Your task to perform on an android device: Open settings Image 0: 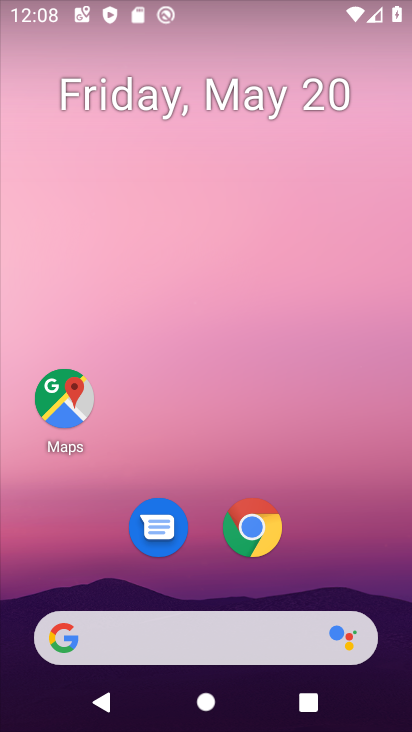
Step 0: press home button
Your task to perform on an android device: Open settings Image 1: 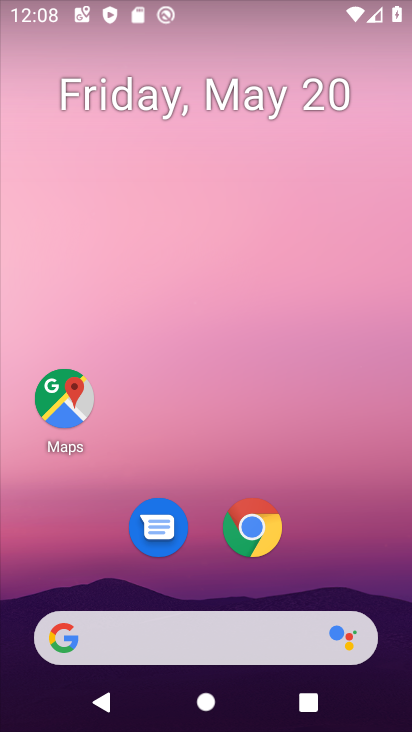
Step 1: drag from (318, 568) to (370, 89)
Your task to perform on an android device: Open settings Image 2: 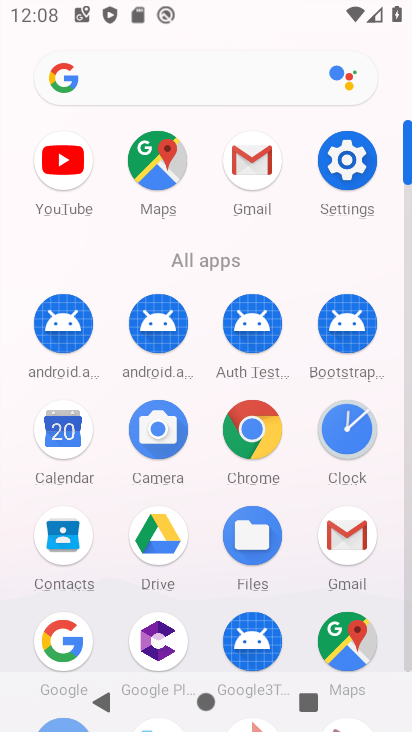
Step 2: click (341, 164)
Your task to perform on an android device: Open settings Image 3: 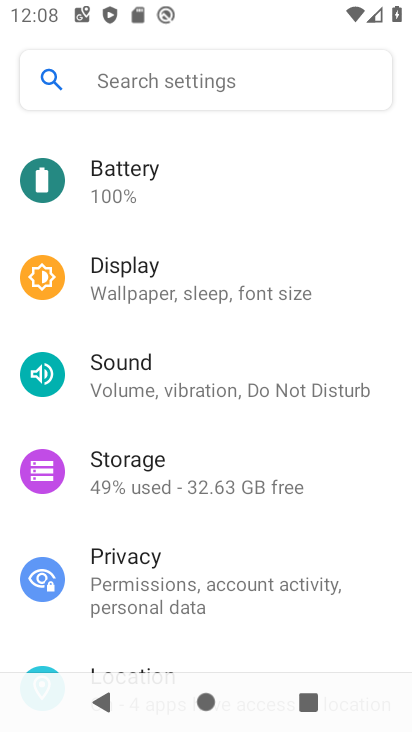
Step 3: task complete